Your task to perform on an android device: move an email to a new category in the gmail app Image 0: 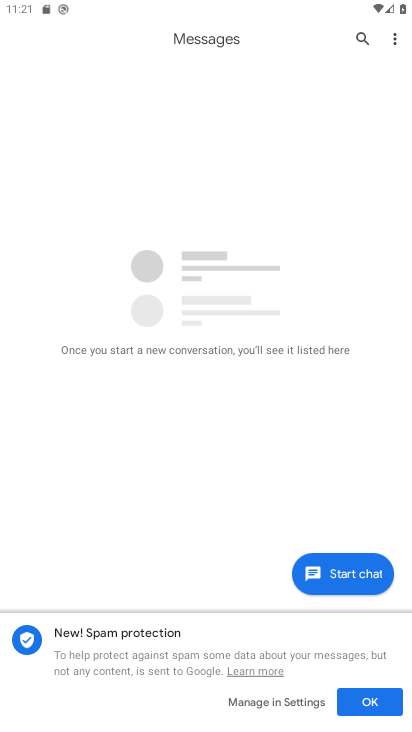
Step 0: press home button
Your task to perform on an android device: move an email to a new category in the gmail app Image 1: 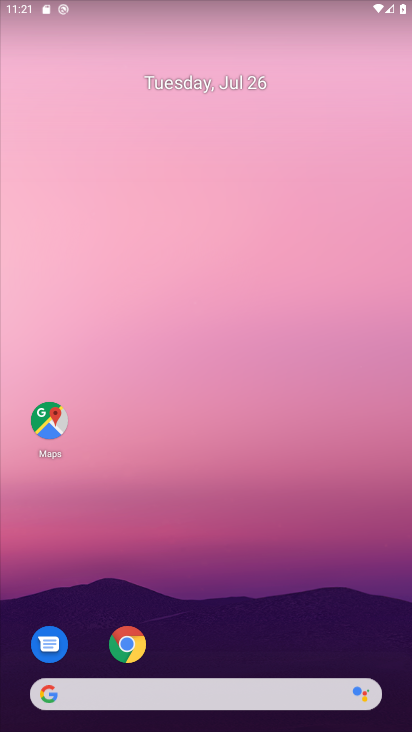
Step 1: drag from (393, 689) to (331, 49)
Your task to perform on an android device: move an email to a new category in the gmail app Image 2: 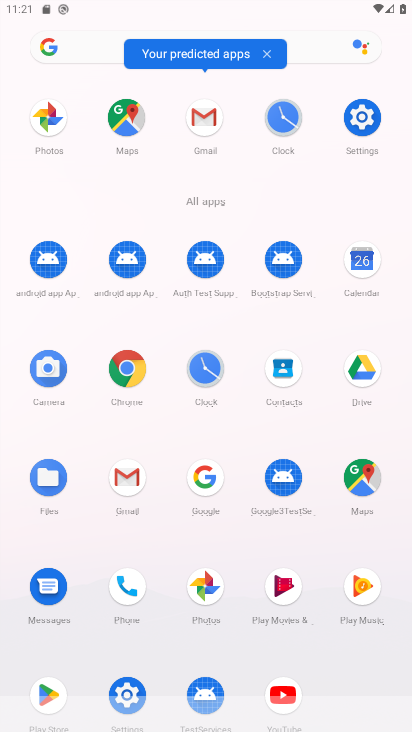
Step 2: click (131, 482)
Your task to perform on an android device: move an email to a new category in the gmail app Image 3: 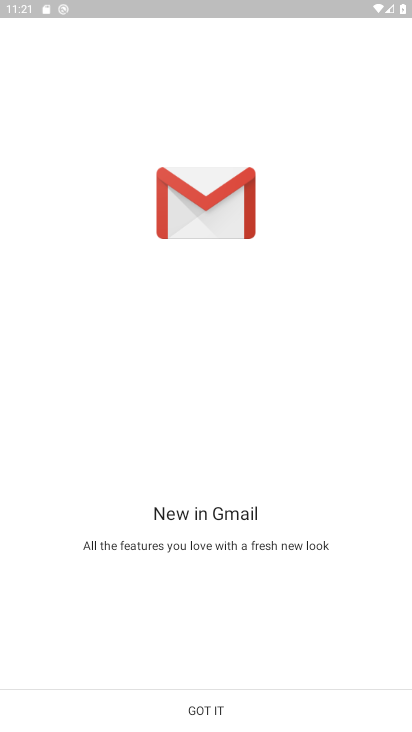
Step 3: click (194, 703)
Your task to perform on an android device: move an email to a new category in the gmail app Image 4: 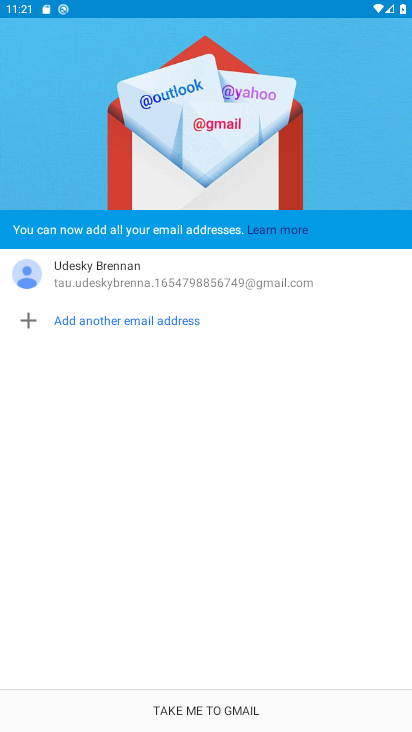
Step 4: click (209, 709)
Your task to perform on an android device: move an email to a new category in the gmail app Image 5: 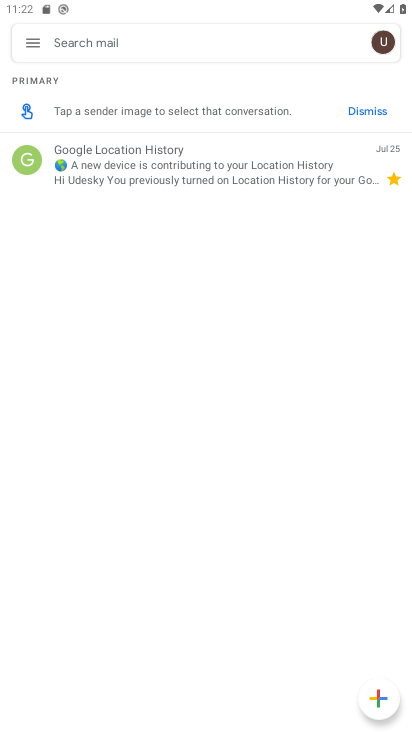
Step 5: click (395, 174)
Your task to perform on an android device: move an email to a new category in the gmail app Image 6: 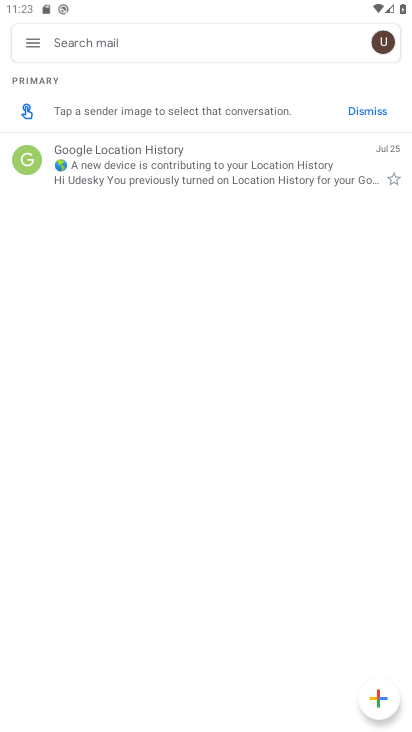
Step 6: task complete